Your task to perform on an android device: Open the stopwatch Image 0: 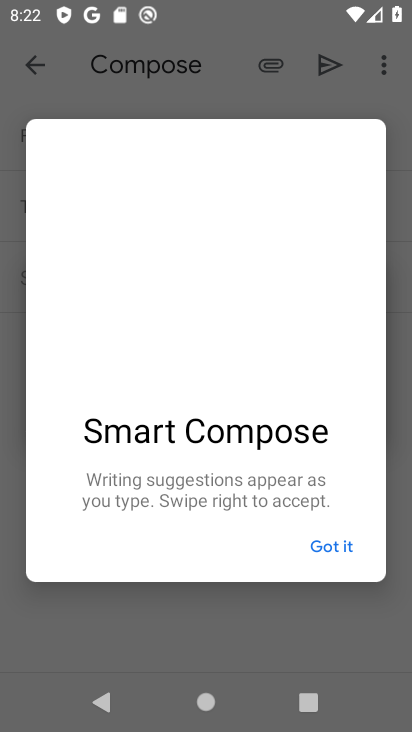
Step 0: press home button
Your task to perform on an android device: Open the stopwatch Image 1: 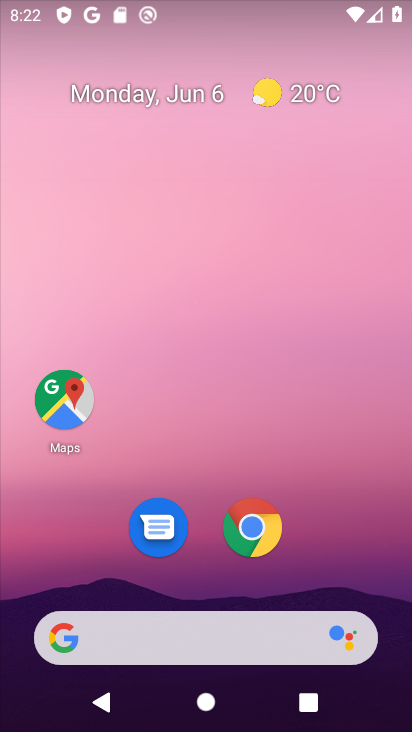
Step 1: drag from (236, 729) to (237, 231)
Your task to perform on an android device: Open the stopwatch Image 2: 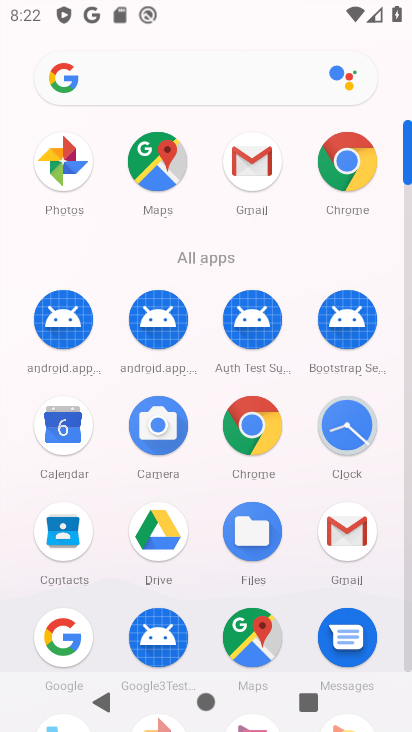
Step 2: click (334, 434)
Your task to perform on an android device: Open the stopwatch Image 3: 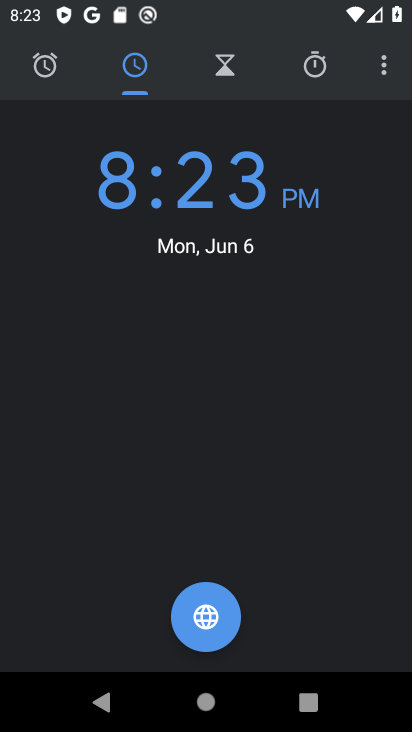
Step 3: click (311, 69)
Your task to perform on an android device: Open the stopwatch Image 4: 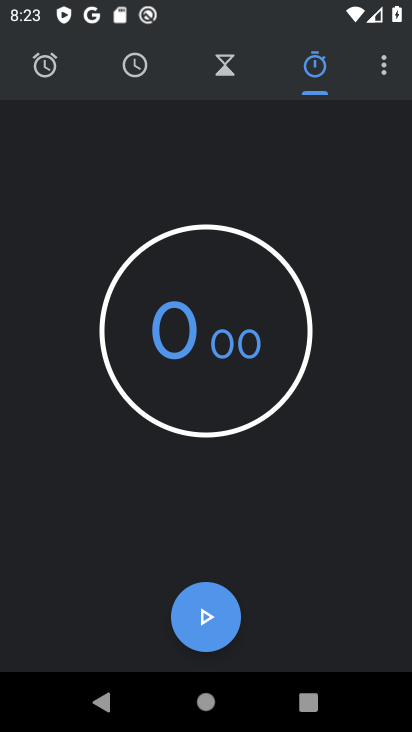
Step 4: click (216, 334)
Your task to perform on an android device: Open the stopwatch Image 5: 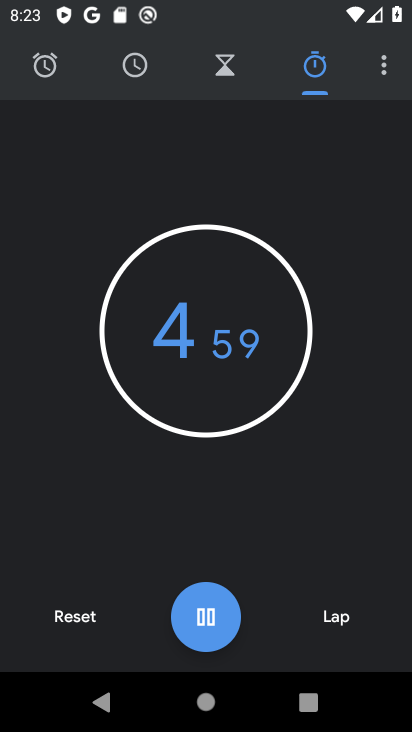
Step 5: type "777"
Your task to perform on an android device: Open the stopwatch Image 6: 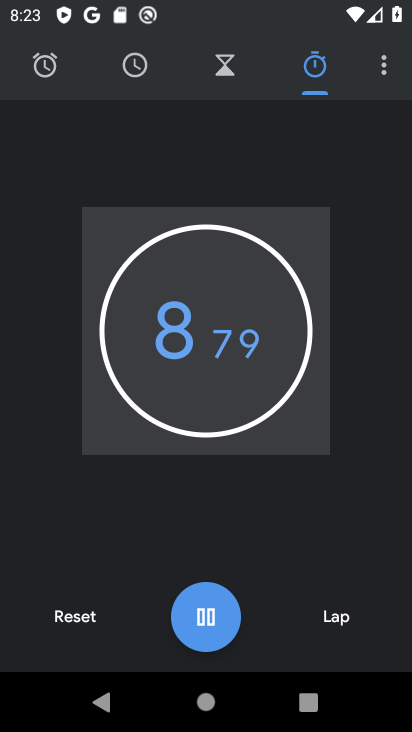
Step 6: task complete